Your task to perform on an android device: turn on translation in the chrome app Image 0: 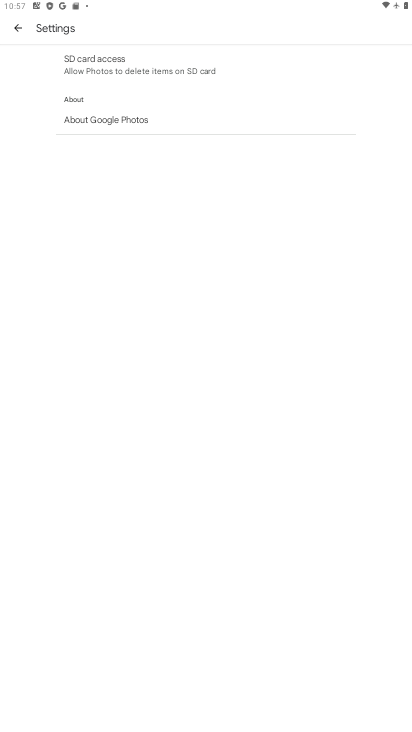
Step 0: press home button
Your task to perform on an android device: turn on translation in the chrome app Image 1: 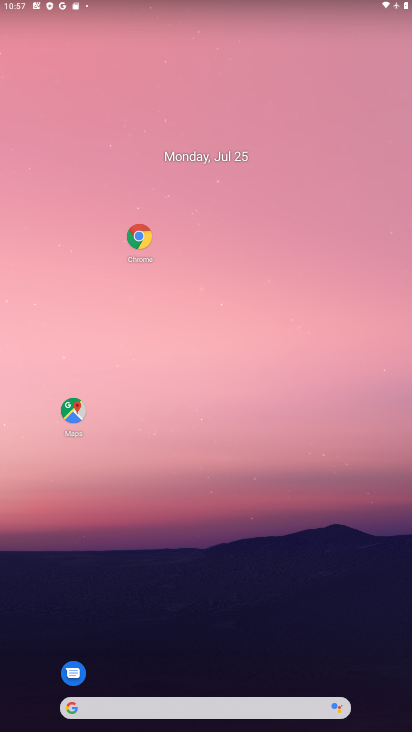
Step 1: click (152, 244)
Your task to perform on an android device: turn on translation in the chrome app Image 2: 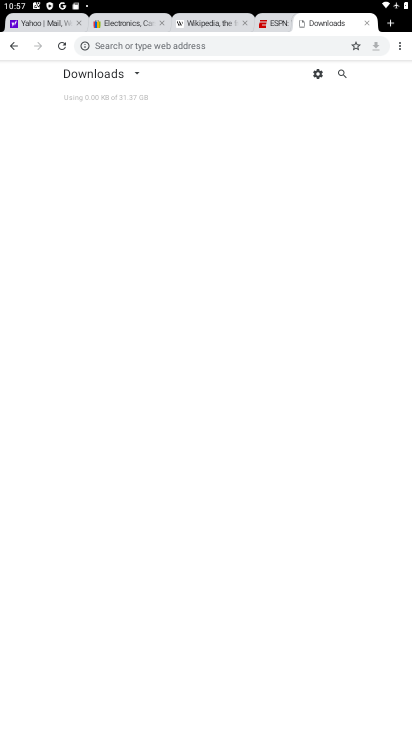
Step 2: click (397, 42)
Your task to perform on an android device: turn on translation in the chrome app Image 3: 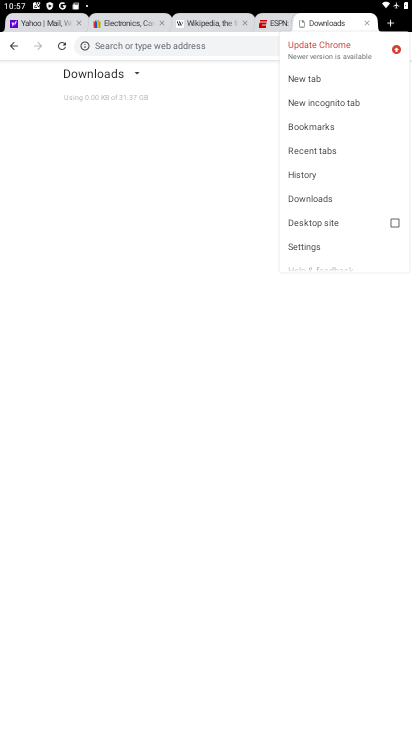
Step 3: click (326, 249)
Your task to perform on an android device: turn on translation in the chrome app Image 4: 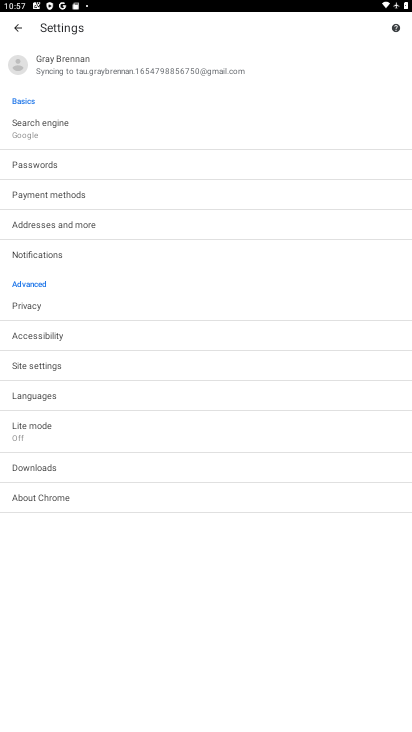
Step 4: click (54, 398)
Your task to perform on an android device: turn on translation in the chrome app Image 5: 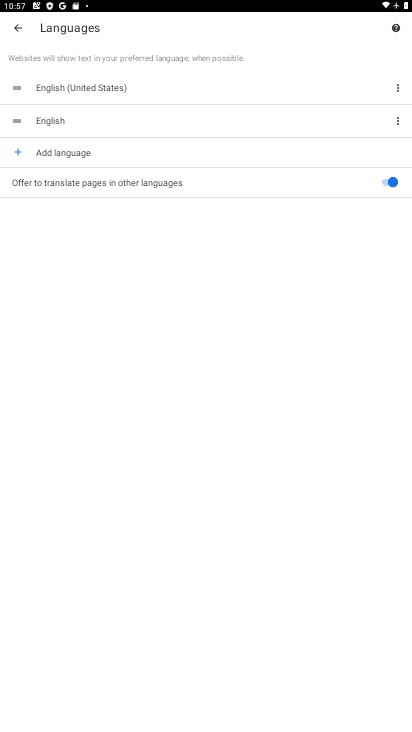
Step 5: click (357, 184)
Your task to perform on an android device: turn on translation in the chrome app Image 6: 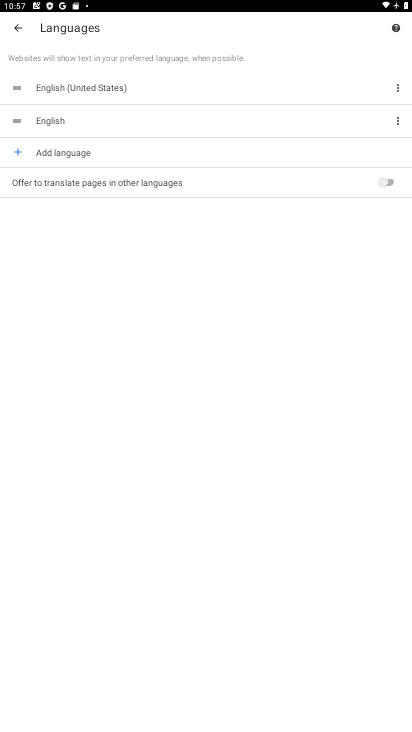
Step 6: task complete